Your task to perform on an android device: Toggle the flashlight Image 0: 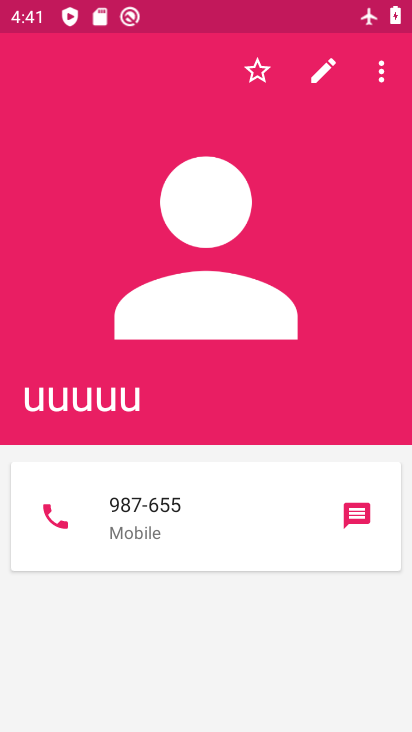
Step 0: press home button
Your task to perform on an android device: Toggle the flashlight Image 1: 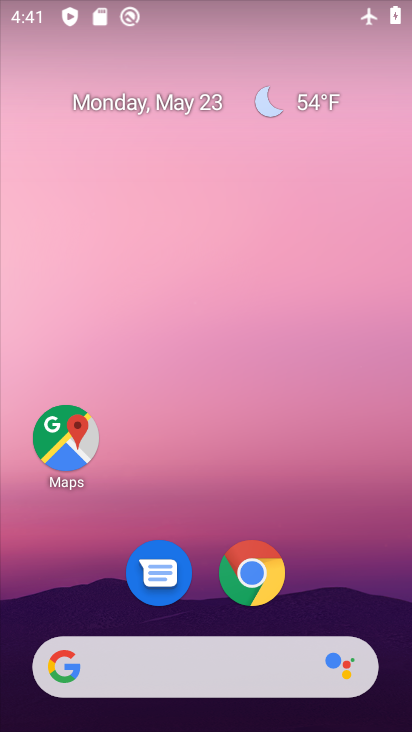
Step 1: drag from (224, 724) to (230, 198)
Your task to perform on an android device: Toggle the flashlight Image 2: 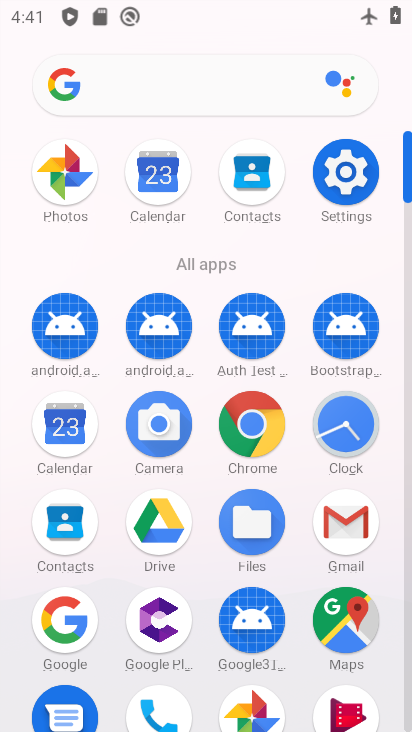
Step 2: click (341, 182)
Your task to perform on an android device: Toggle the flashlight Image 3: 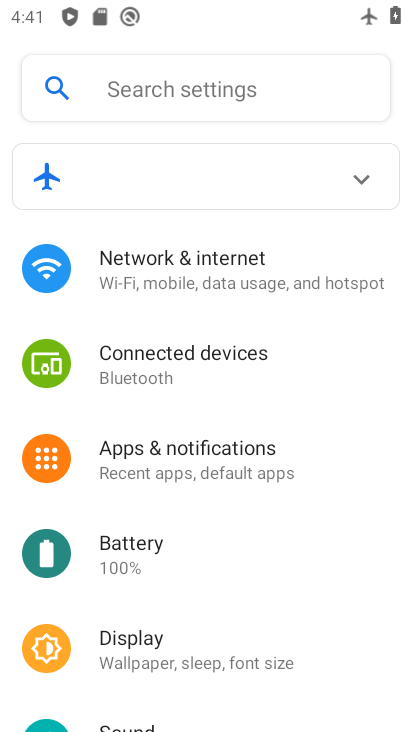
Step 3: task complete